Your task to perform on an android device: check the backup settings in the google photos Image 0: 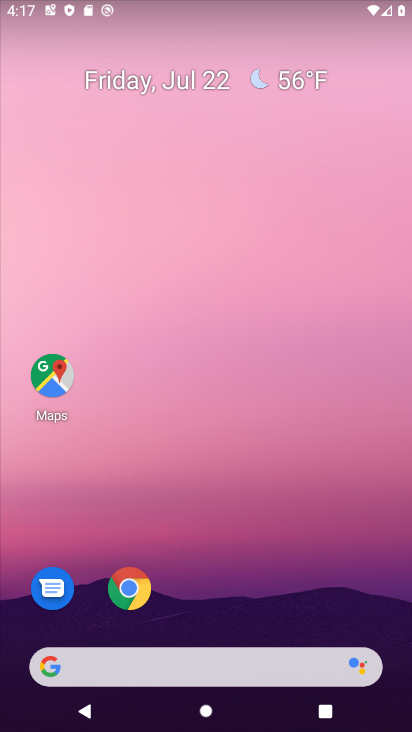
Step 0: drag from (236, 598) to (228, 244)
Your task to perform on an android device: check the backup settings in the google photos Image 1: 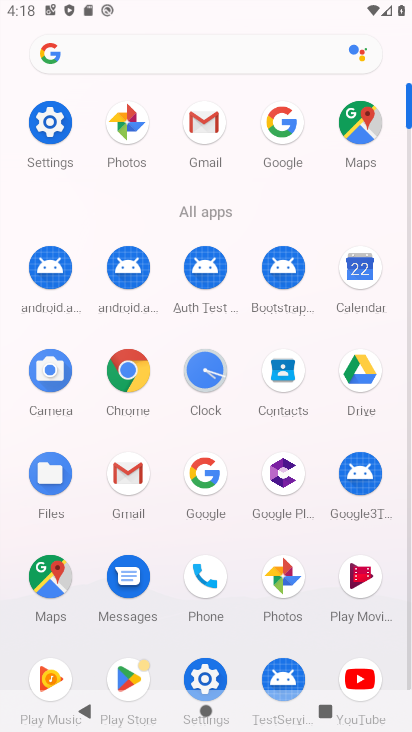
Step 1: click (277, 600)
Your task to perform on an android device: check the backup settings in the google photos Image 2: 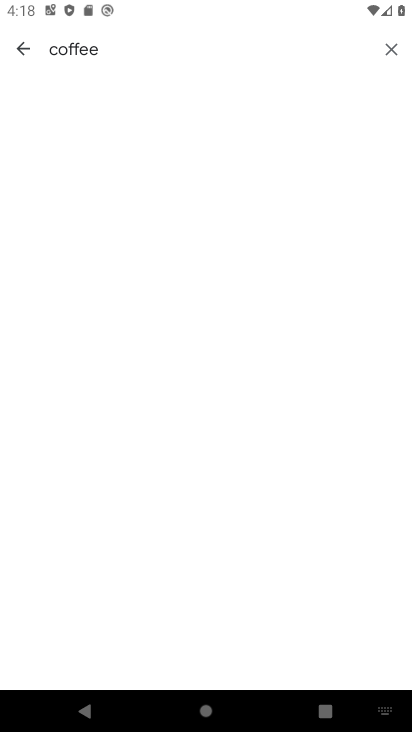
Step 2: click (24, 53)
Your task to perform on an android device: check the backup settings in the google photos Image 3: 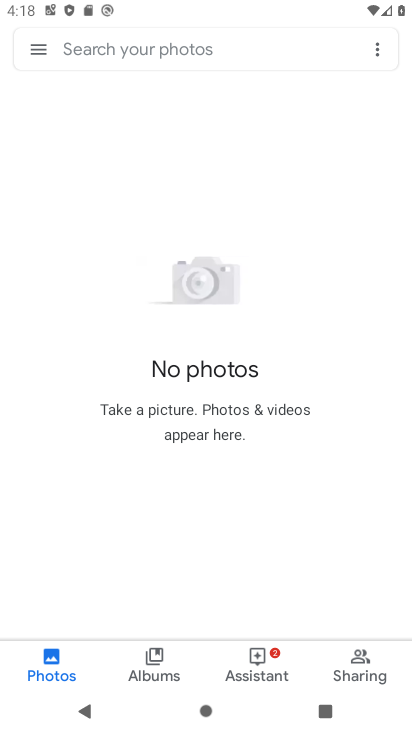
Step 3: click (24, 53)
Your task to perform on an android device: check the backup settings in the google photos Image 4: 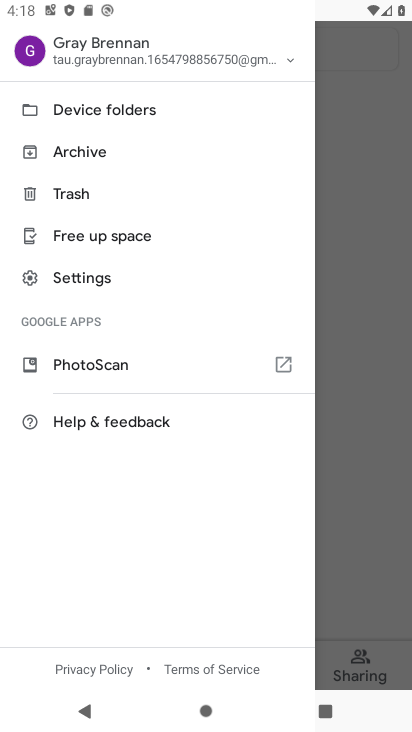
Step 4: click (102, 292)
Your task to perform on an android device: check the backup settings in the google photos Image 5: 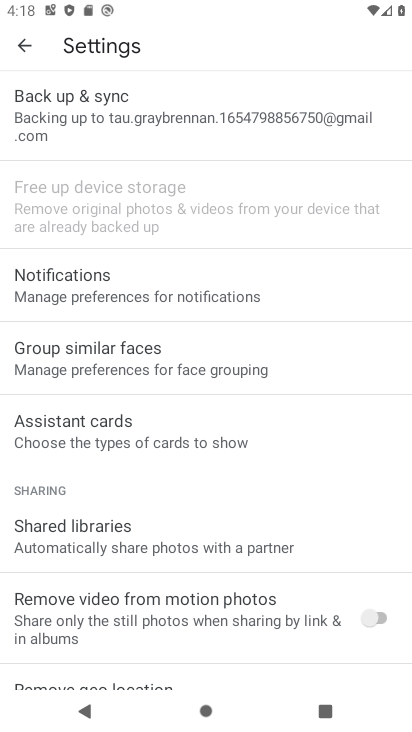
Step 5: click (115, 135)
Your task to perform on an android device: check the backup settings in the google photos Image 6: 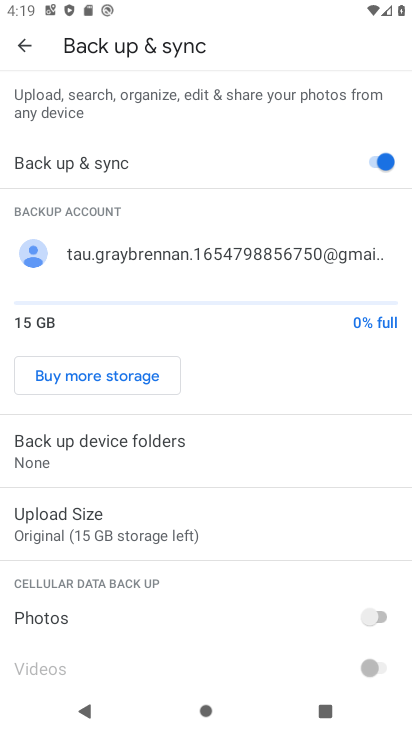
Step 6: task complete